Your task to perform on an android device: find photos in the google photos app Image 0: 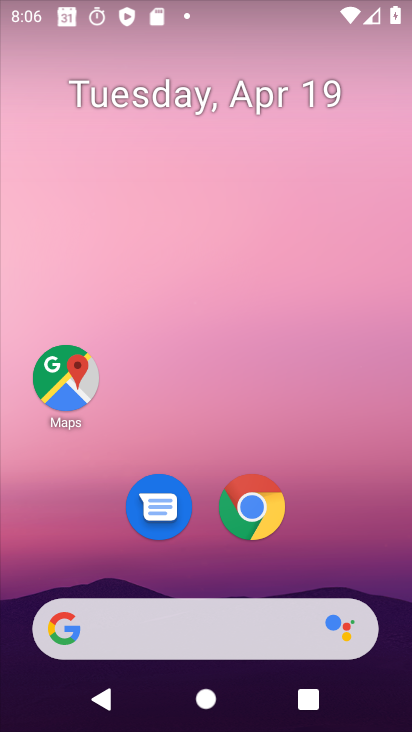
Step 0: drag from (312, 562) to (256, 156)
Your task to perform on an android device: find photos in the google photos app Image 1: 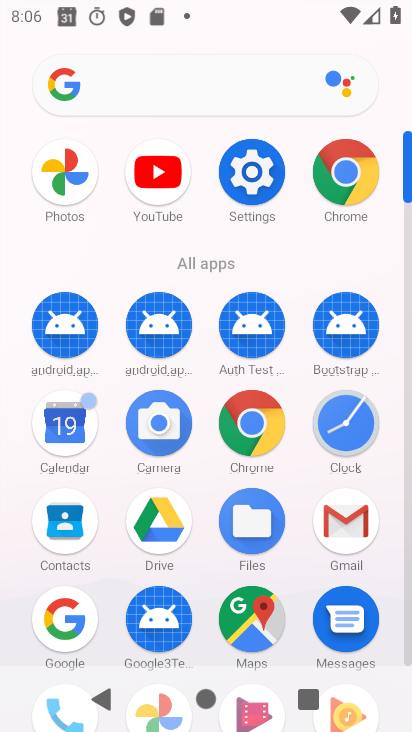
Step 1: click (60, 176)
Your task to perform on an android device: find photos in the google photos app Image 2: 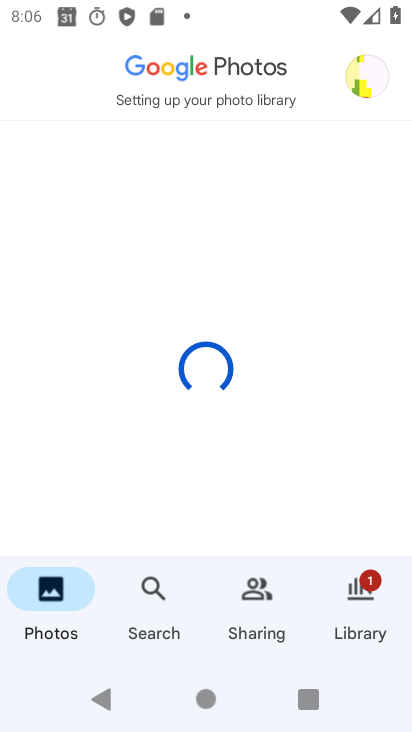
Step 2: drag from (134, 166) to (163, 283)
Your task to perform on an android device: find photos in the google photos app Image 3: 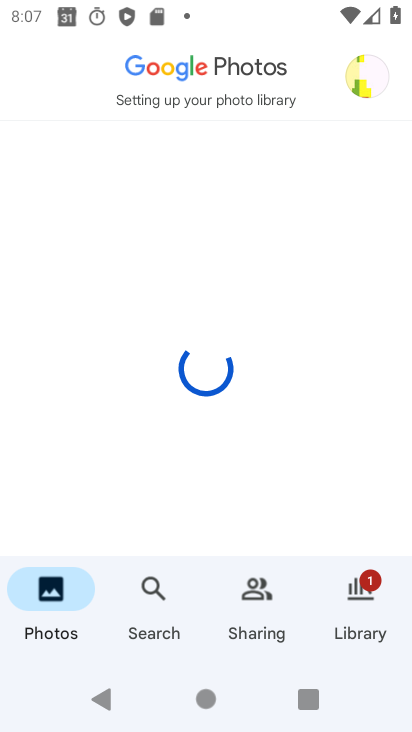
Step 3: click (290, 316)
Your task to perform on an android device: find photos in the google photos app Image 4: 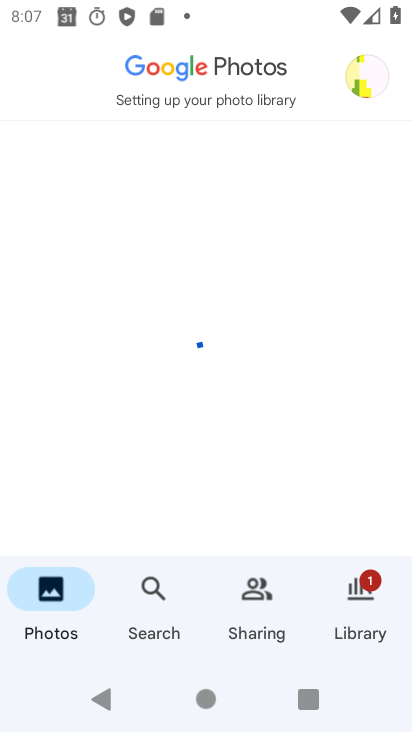
Step 4: click (157, 604)
Your task to perform on an android device: find photos in the google photos app Image 5: 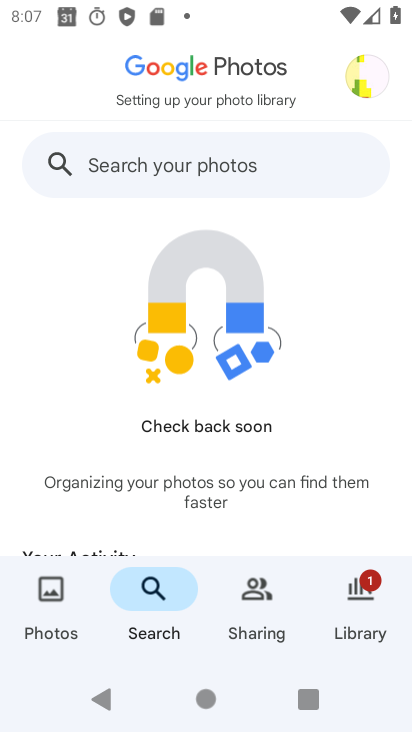
Step 5: click (62, 603)
Your task to perform on an android device: find photos in the google photos app Image 6: 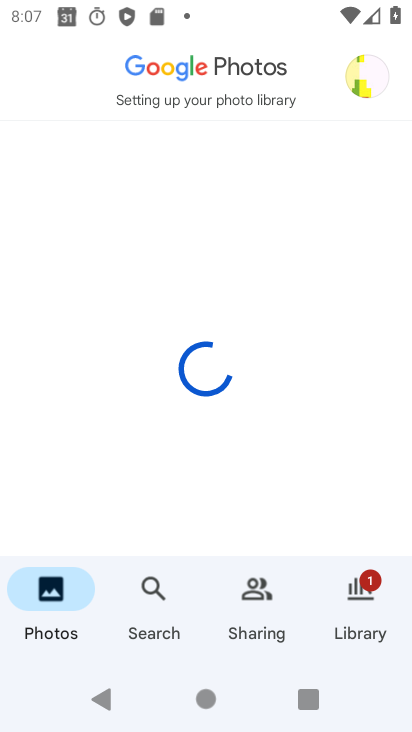
Step 6: task complete